Your task to perform on an android device: Find coffee shops on Maps Image 0: 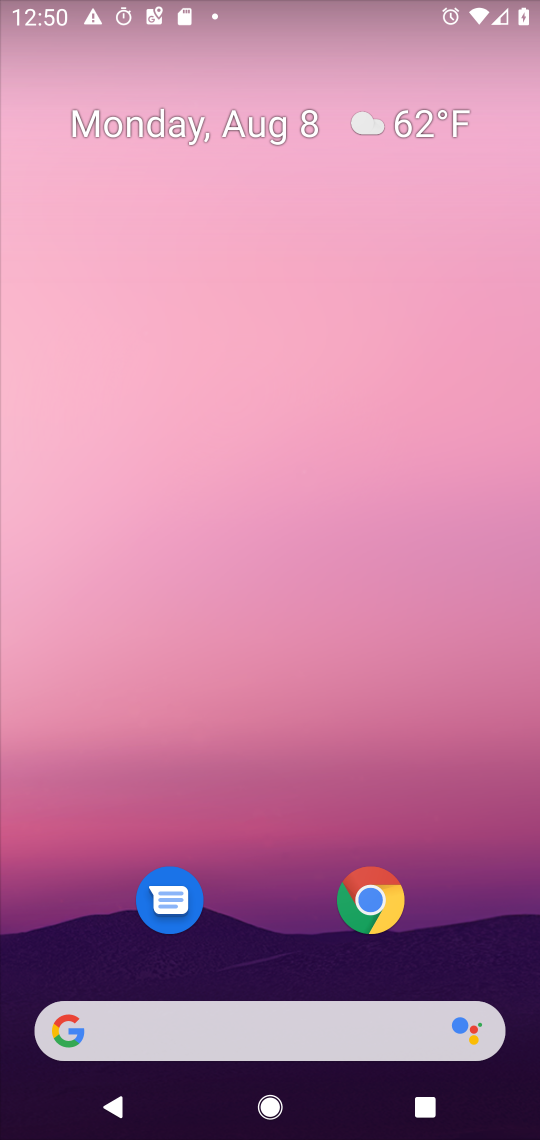
Step 0: press home button
Your task to perform on an android device: Find coffee shops on Maps Image 1: 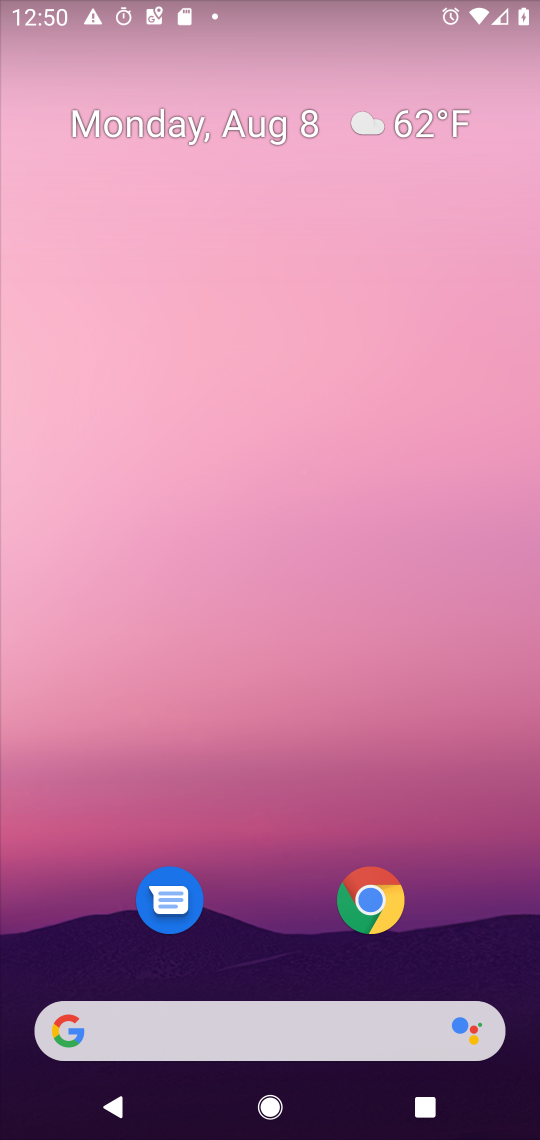
Step 1: drag from (274, 965) to (272, 77)
Your task to perform on an android device: Find coffee shops on Maps Image 2: 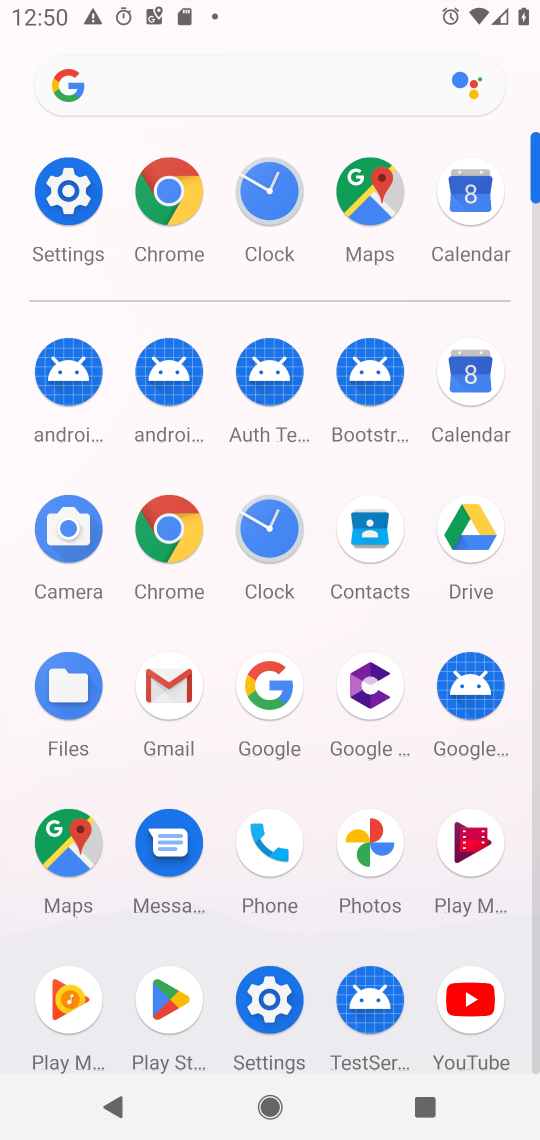
Step 2: click (70, 837)
Your task to perform on an android device: Find coffee shops on Maps Image 3: 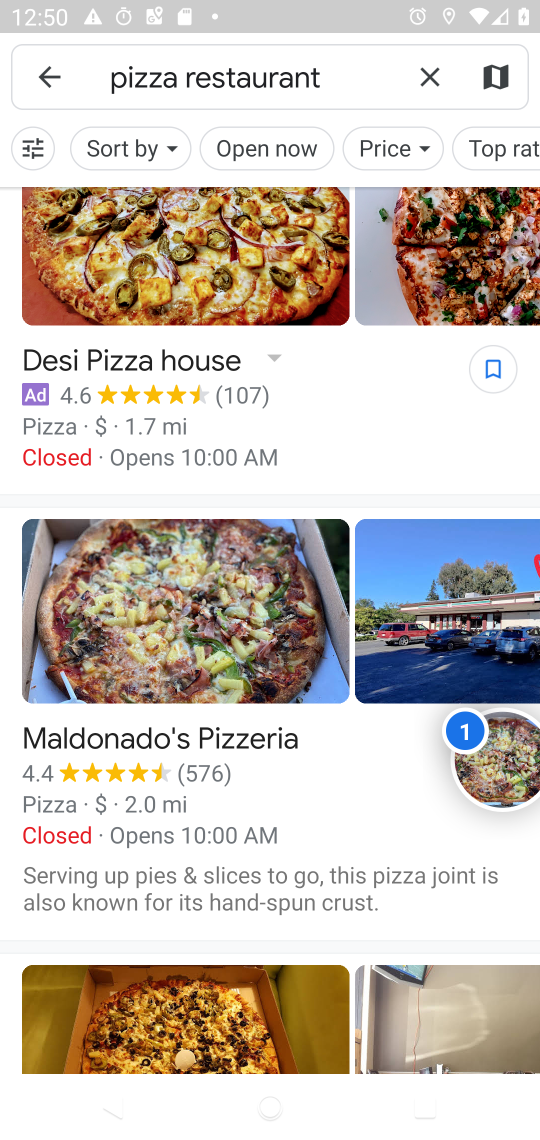
Step 3: click (433, 71)
Your task to perform on an android device: Find coffee shops on Maps Image 4: 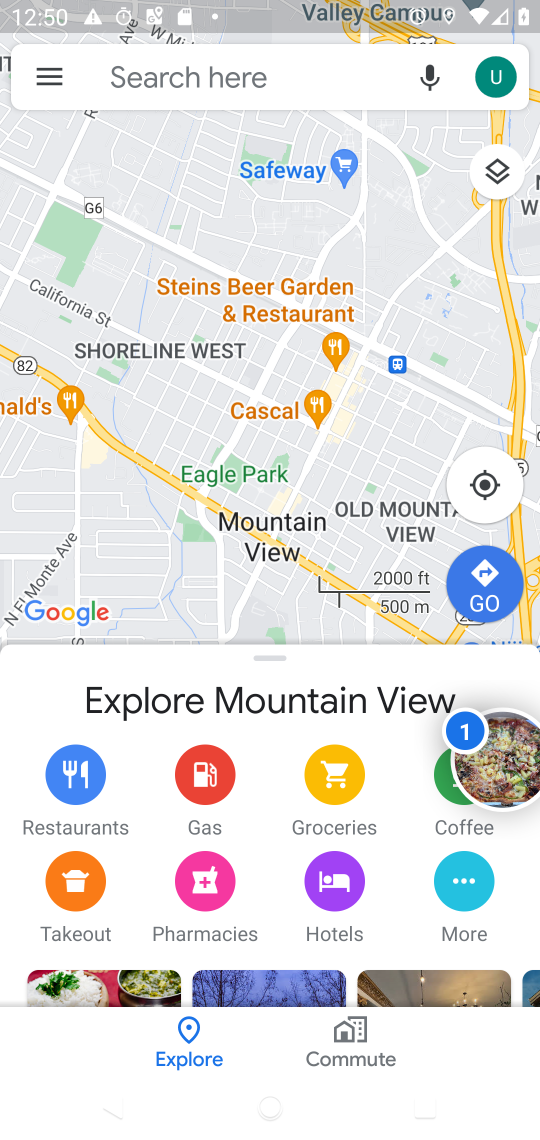
Step 4: click (170, 77)
Your task to perform on an android device: Find coffee shops on Maps Image 5: 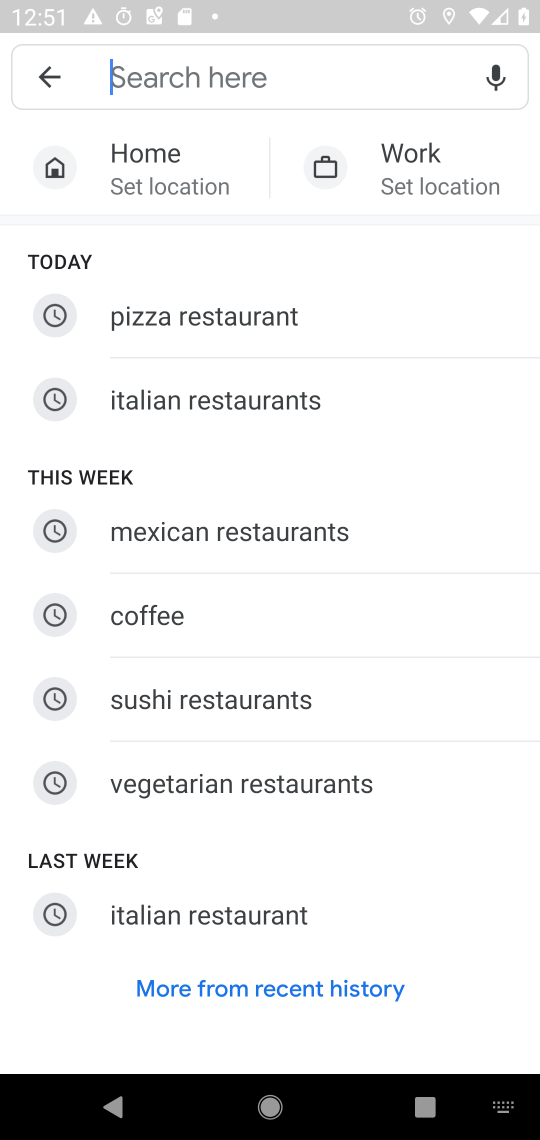
Step 5: click (200, 608)
Your task to perform on an android device: Find coffee shops on Maps Image 6: 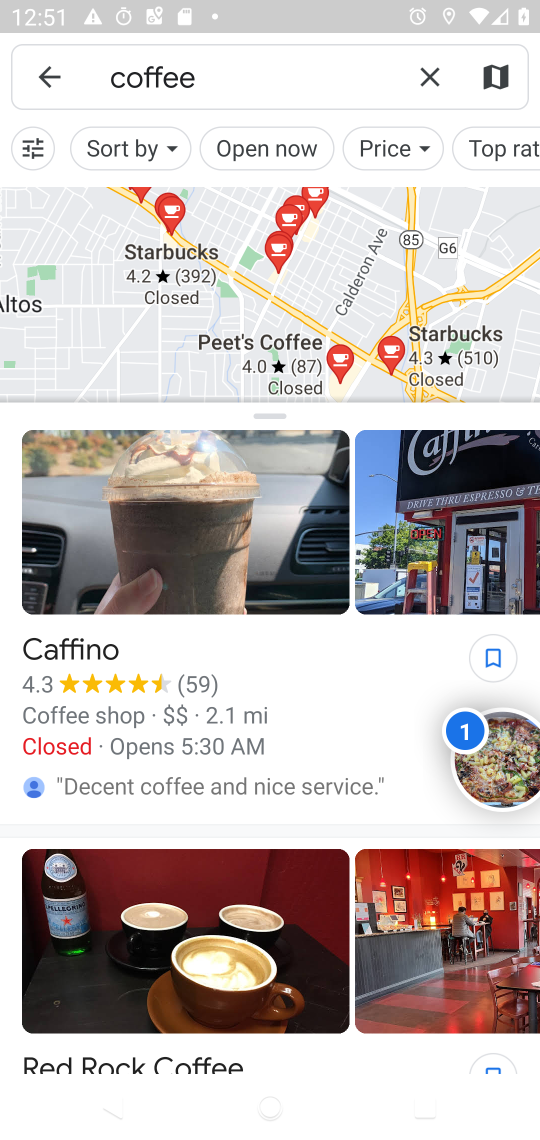
Step 6: task complete